Your task to perform on an android device: Toggle the flashlight Image 0: 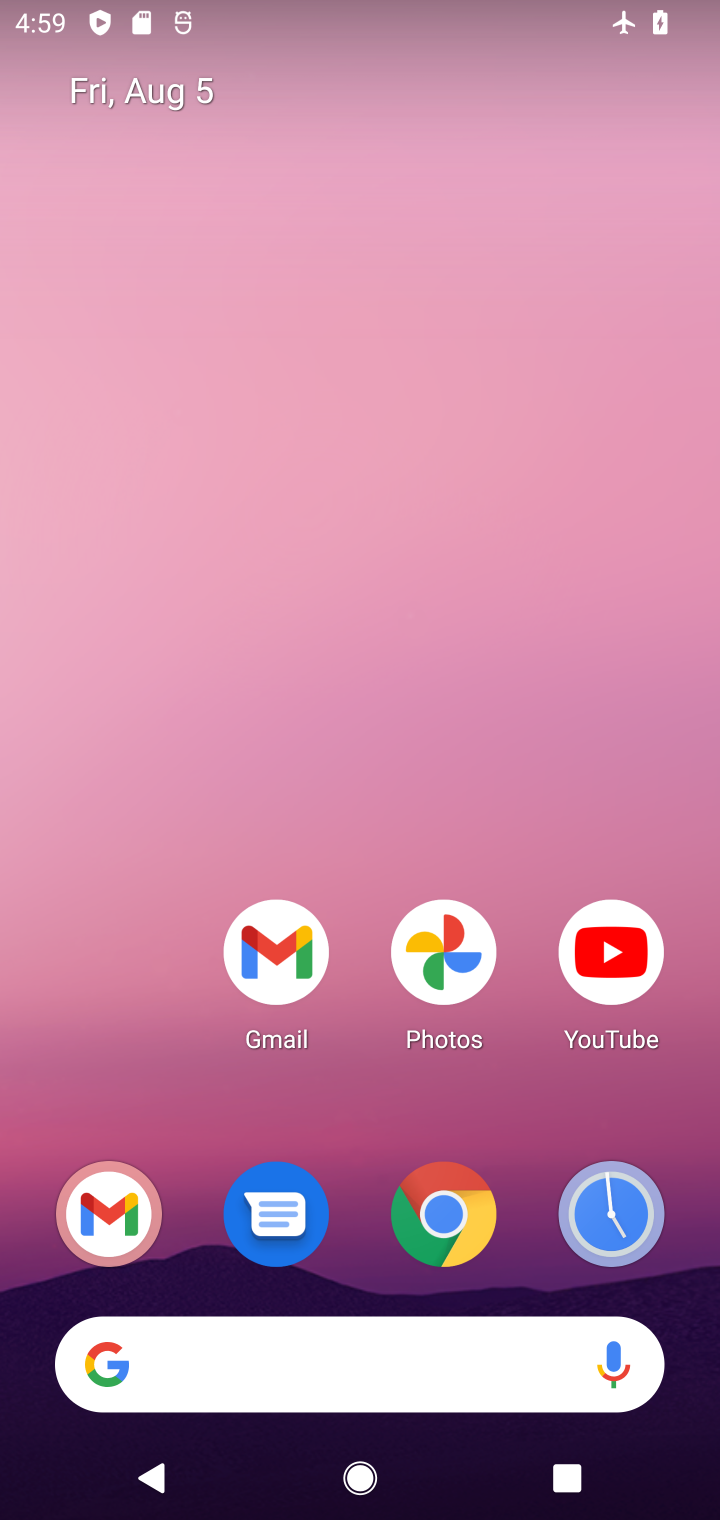
Step 0: drag from (161, 1034) to (331, 4)
Your task to perform on an android device: Toggle the flashlight Image 1: 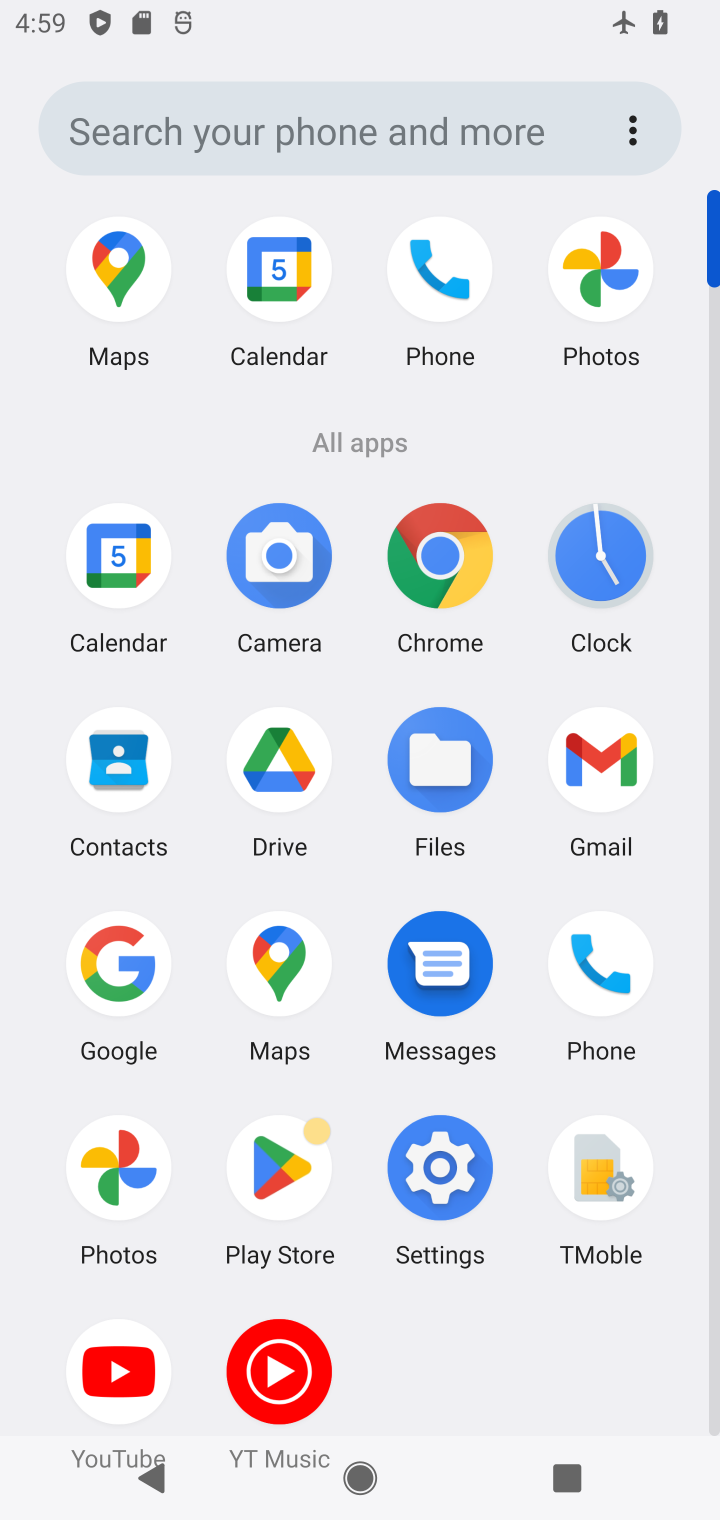
Step 1: click (427, 1151)
Your task to perform on an android device: Toggle the flashlight Image 2: 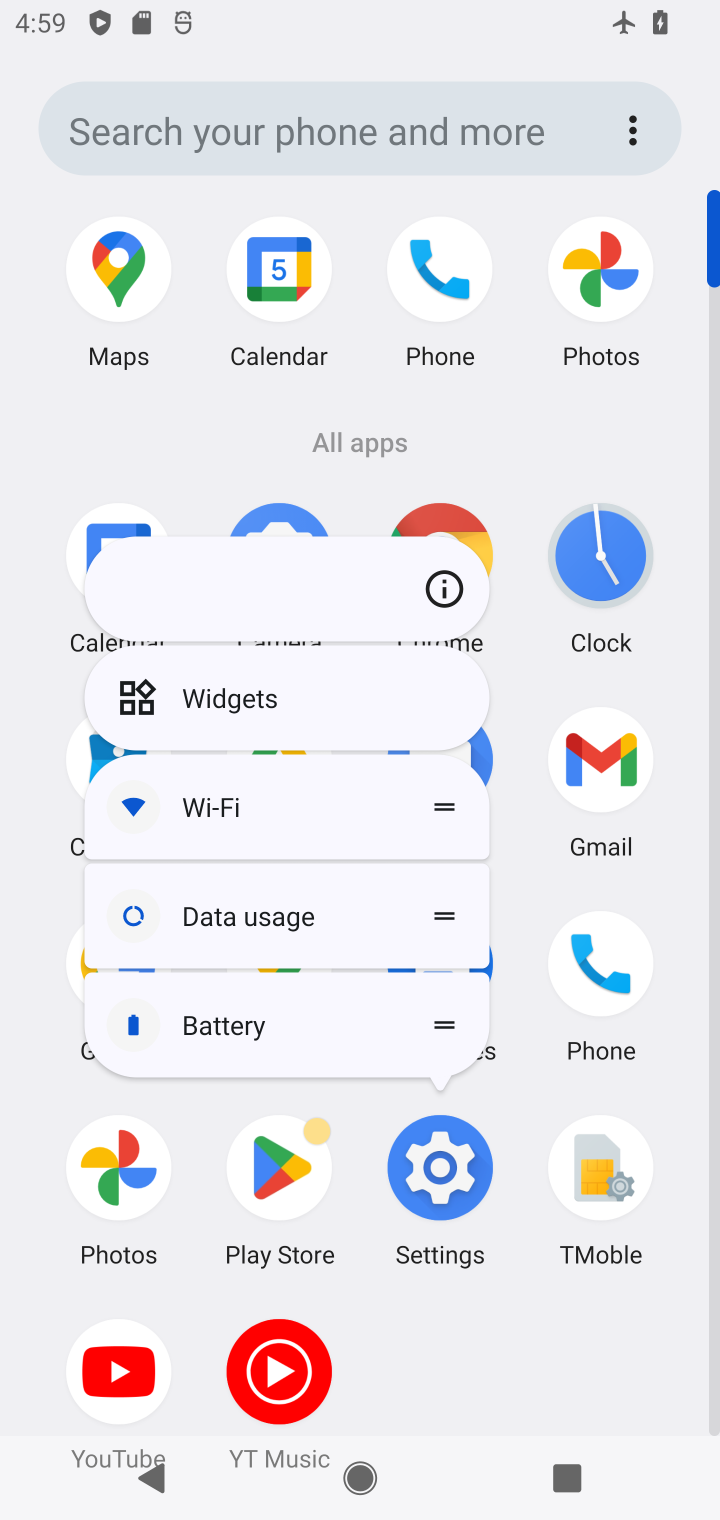
Step 2: click (439, 1167)
Your task to perform on an android device: Toggle the flashlight Image 3: 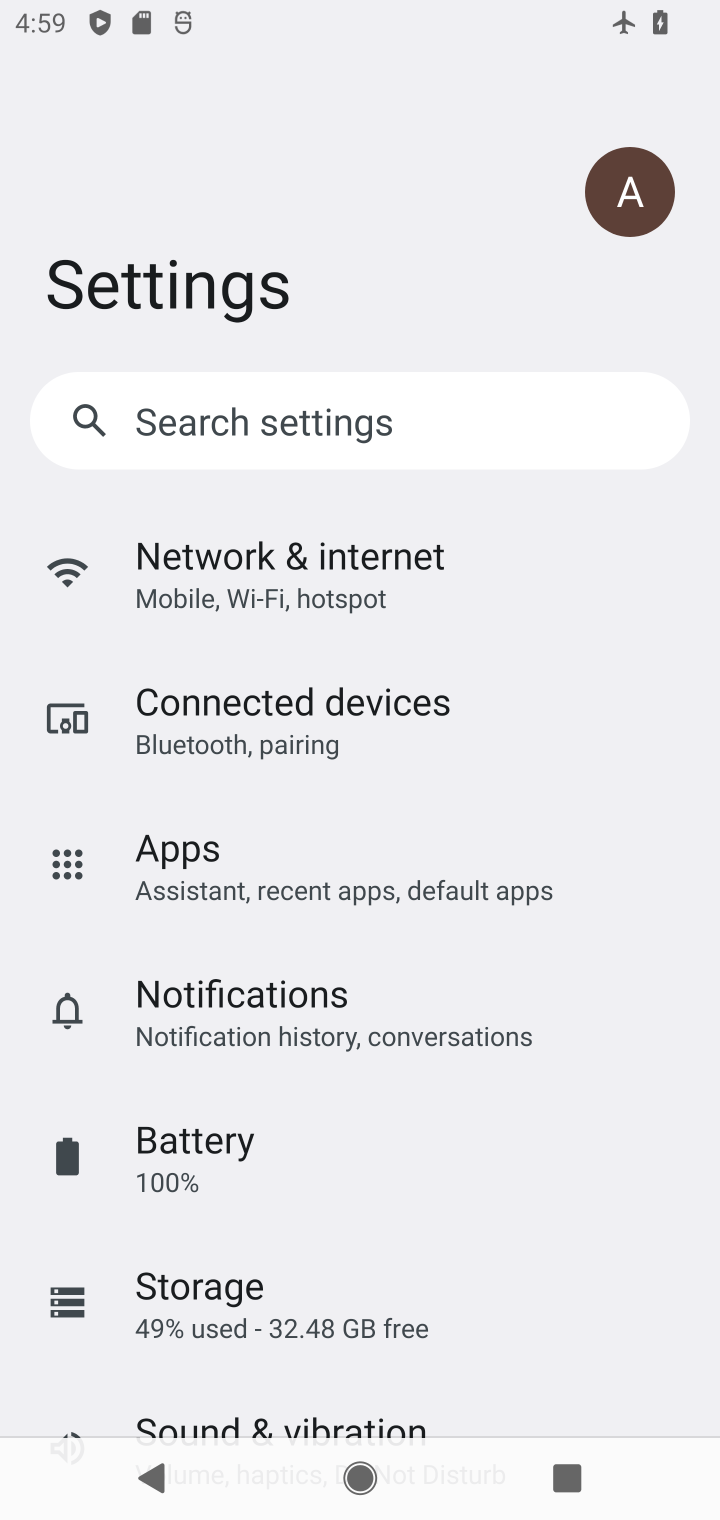
Step 3: click (437, 420)
Your task to perform on an android device: Toggle the flashlight Image 4: 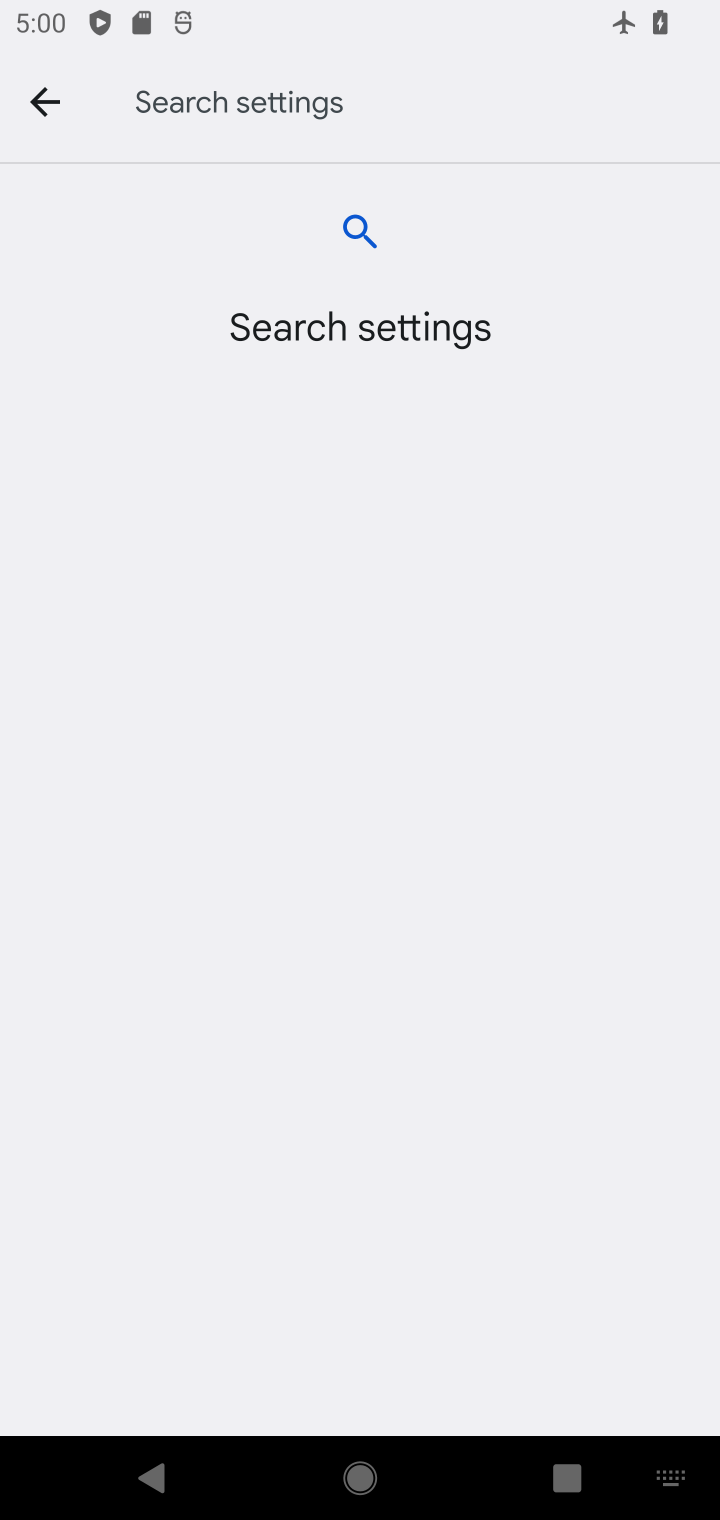
Step 4: type "Flashlight"
Your task to perform on an android device: Toggle the flashlight Image 5: 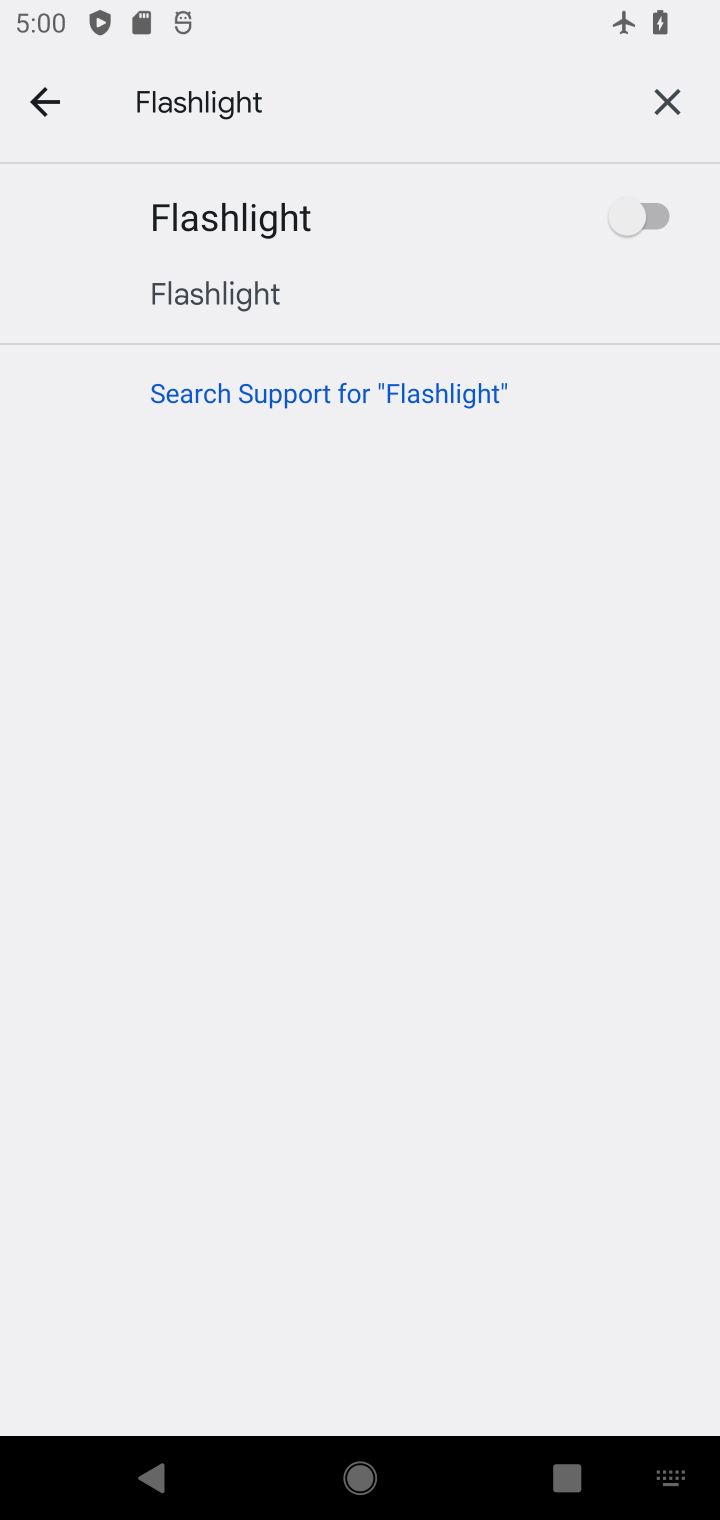
Step 5: click (249, 219)
Your task to perform on an android device: Toggle the flashlight Image 6: 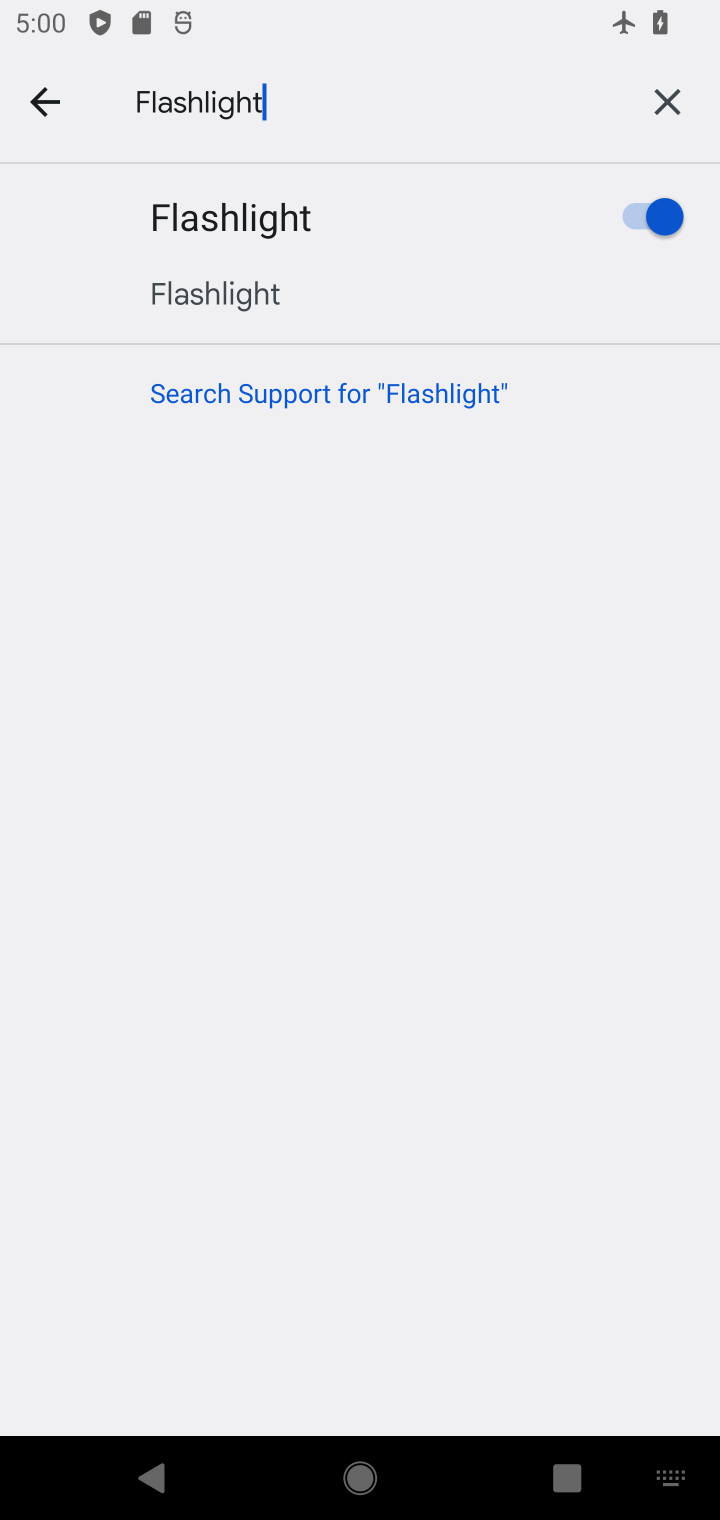
Step 6: task complete